Your task to perform on an android device: change the upload size in google photos Image 0: 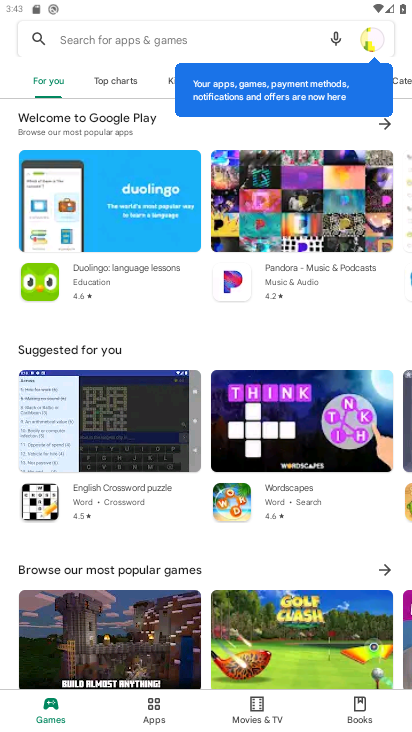
Step 0: press home button
Your task to perform on an android device: change the upload size in google photos Image 1: 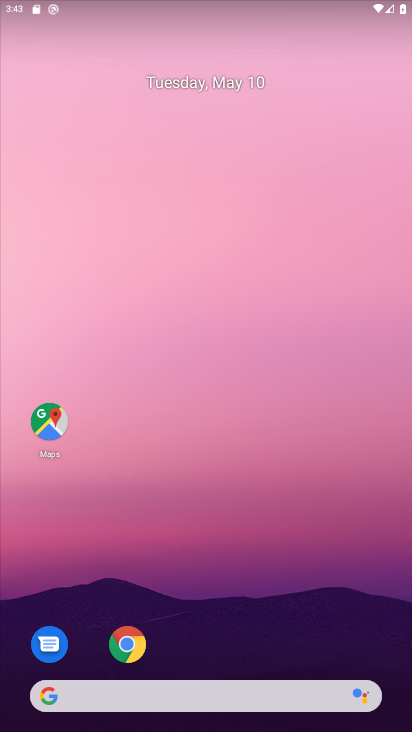
Step 1: drag from (202, 665) to (204, 19)
Your task to perform on an android device: change the upload size in google photos Image 2: 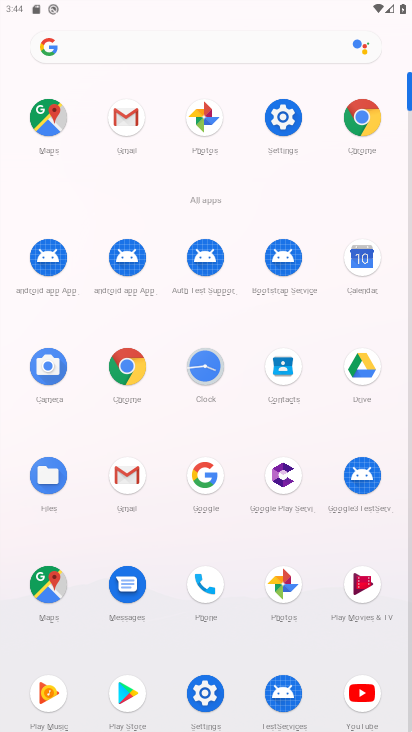
Step 2: click (283, 581)
Your task to perform on an android device: change the upload size in google photos Image 3: 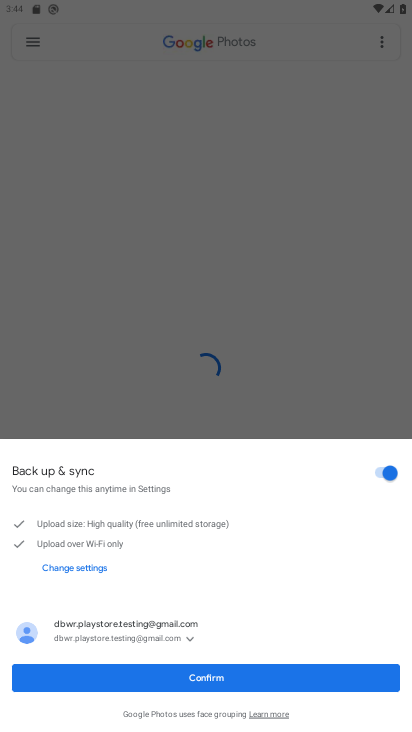
Step 3: click (212, 678)
Your task to perform on an android device: change the upload size in google photos Image 4: 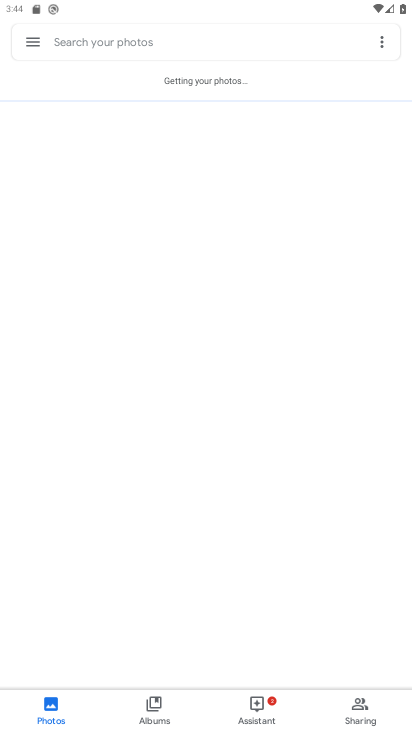
Step 4: click (26, 38)
Your task to perform on an android device: change the upload size in google photos Image 5: 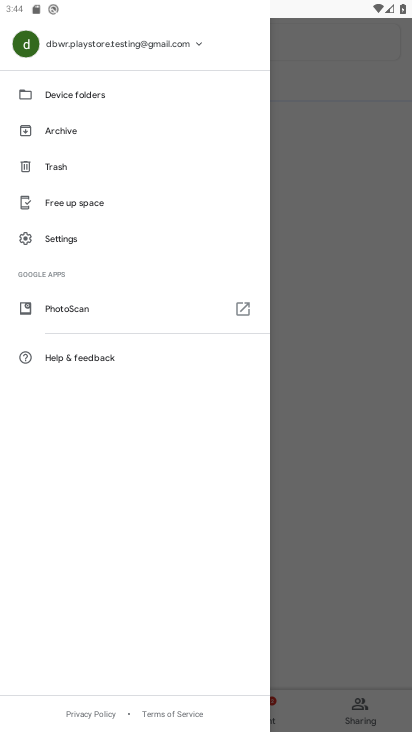
Step 5: click (51, 236)
Your task to perform on an android device: change the upload size in google photos Image 6: 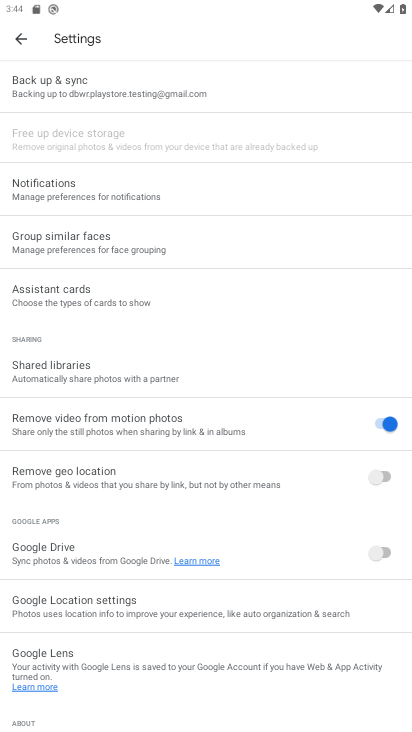
Step 6: click (105, 79)
Your task to perform on an android device: change the upload size in google photos Image 7: 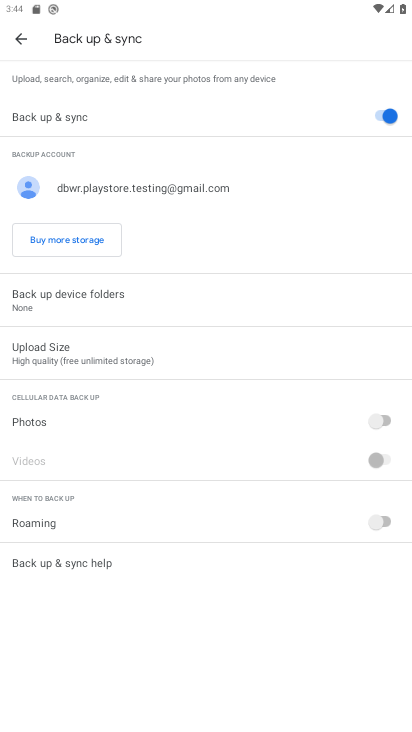
Step 7: click (81, 350)
Your task to perform on an android device: change the upload size in google photos Image 8: 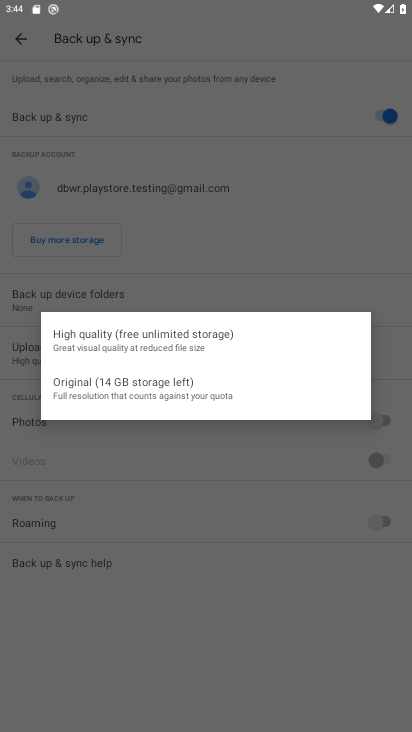
Step 8: click (130, 394)
Your task to perform on an android device: change the upload size in google photos Image 9: 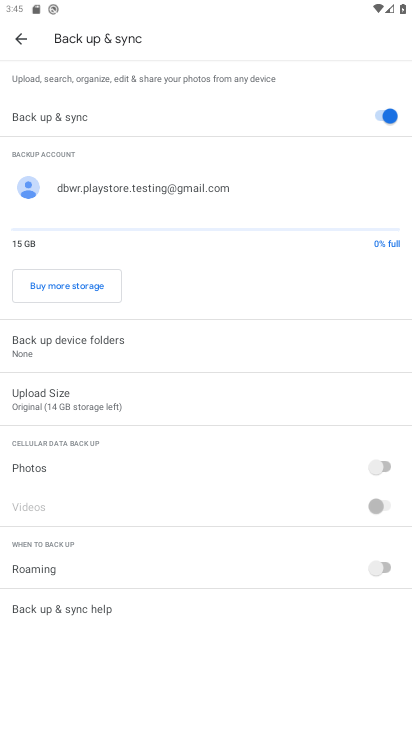
Step 9: task complete